Your task to perform on an android device: What's the weather going to be tomorrow? Image 0: 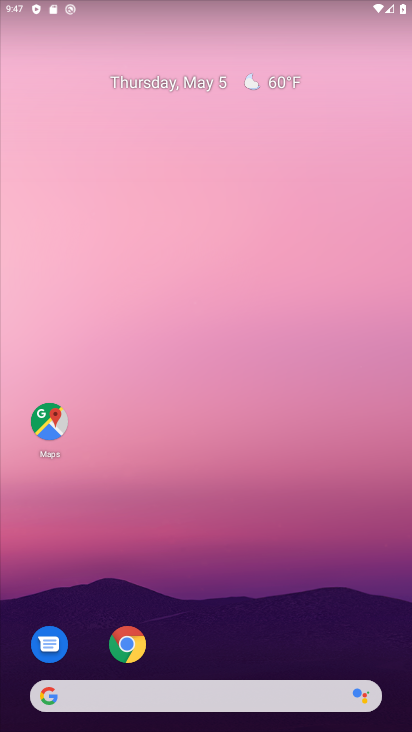
Step 0: drag from (360, 622) to (350, 119)
Your task to perform on an android device: What's the weather going to be tomorrow? Image 1: 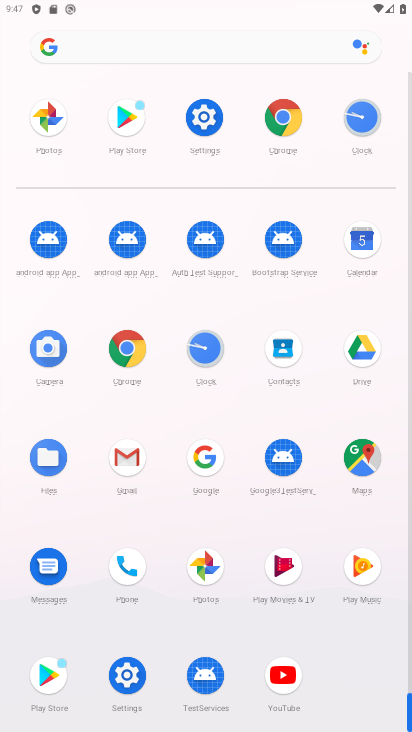
Step 1: click (134, 344)
Your task to perform on an android device: What's the weather going to be tomorrow? Image 2: 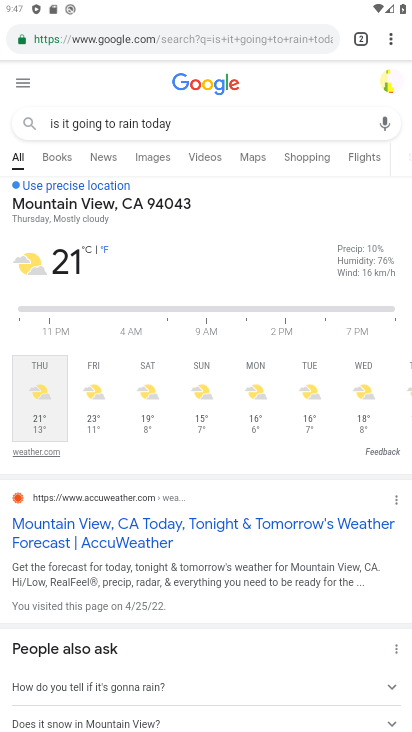
Step 2: click (138, 41)
Your task to perform on an android device: What's the weather going to be tomorrow? Image 3: 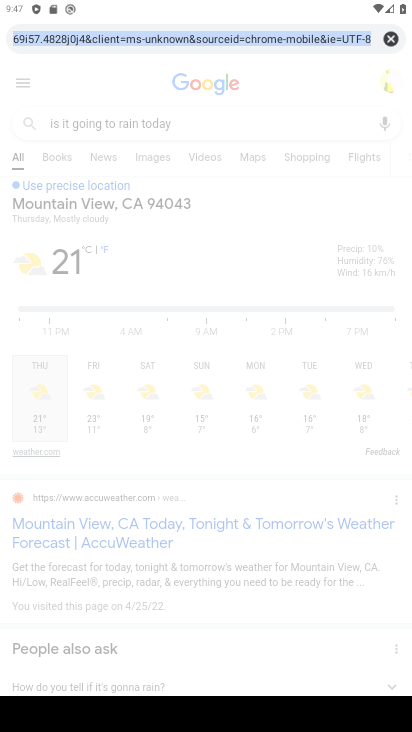
Step 3: click (392, 34)
Your task to perform on an android device: What's the weather going to be tomorrow? Image 4: 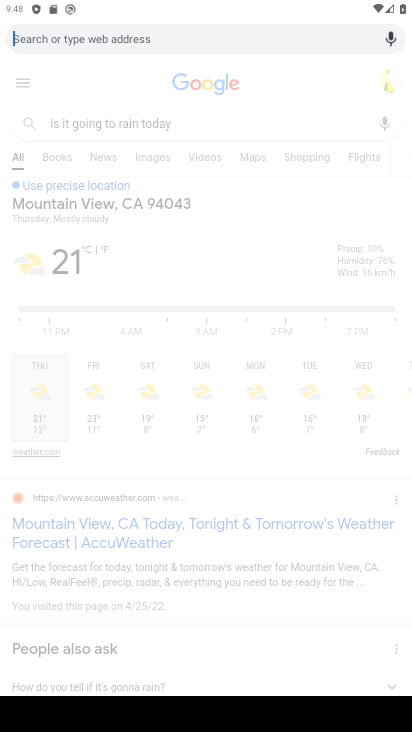
Step 4: type "what's the weather going to be tomorrow"
Your task to perform on an android device: What's the weather going to be tomorrow? Image 5: 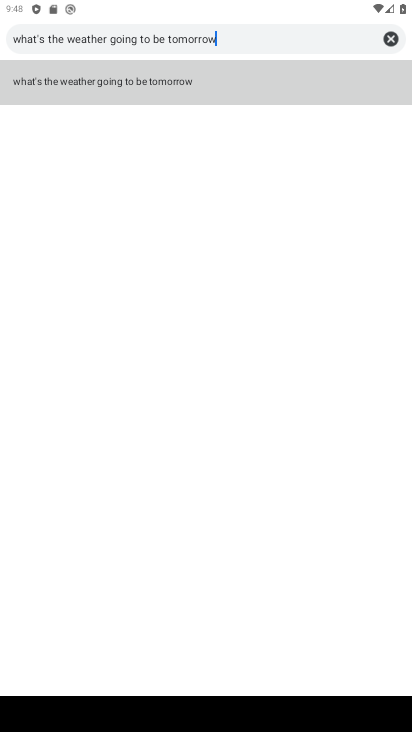
Step 5: click (126, 72)
Your task to perform on an android device: What's the weather going to be tomorrow? Image 6: 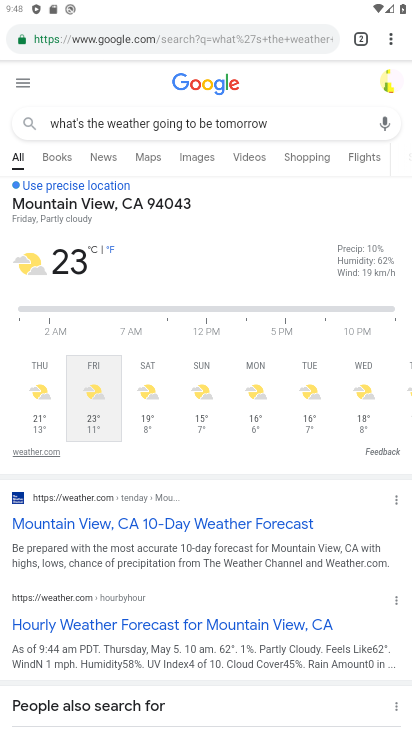
Step 6: task complete